Your task to perform on an android device: turn on the 24-hour format for clock Image 0: 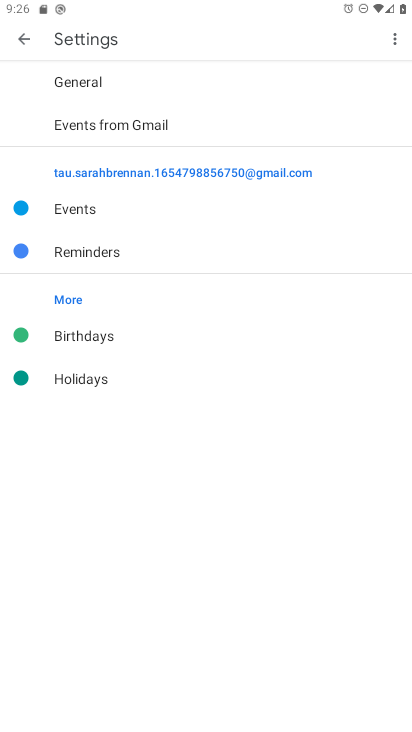
Step 0: press home button
Your task to perform on an android device: turn on the 24-hour format for clock Image 1: 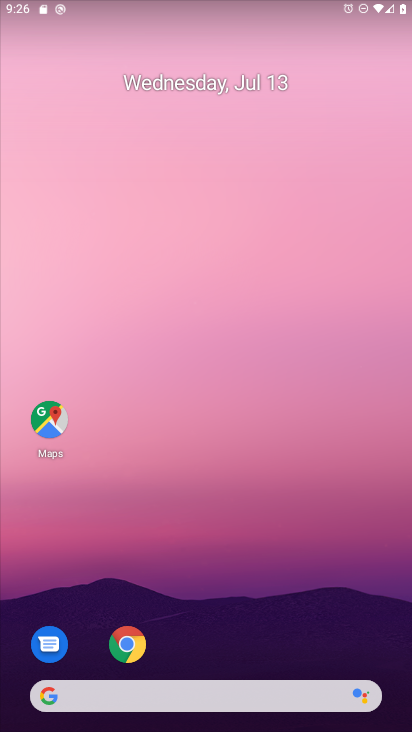
Step 1: drag from (296, 593) to (242, 1)
Your task to perform on an android device: turn on the 24-hour format for clock Image 2: 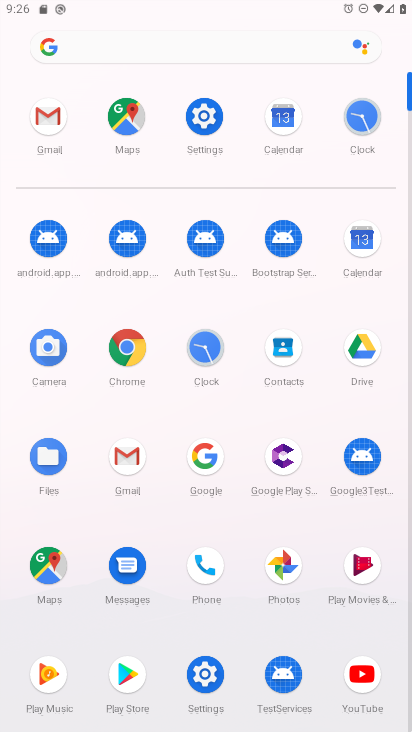
Step 2: click (366, 122)
Your task to perform on an android device: turn on the 24-hour format for clock Image 3: 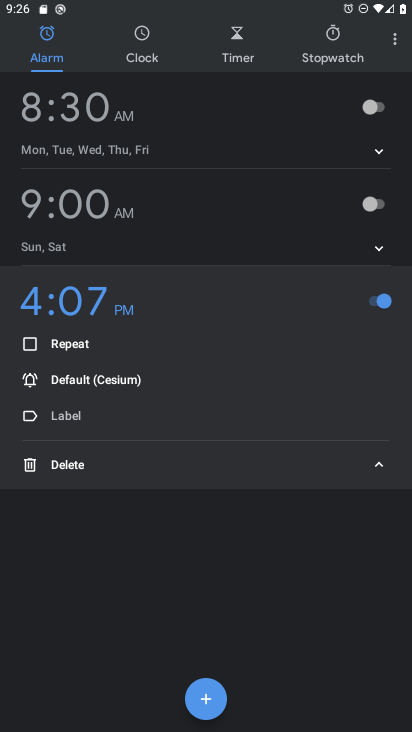
Step 3: click (396, 45)
Your task to perform on an android device: turn on the 24-hour format for clock Image 4: 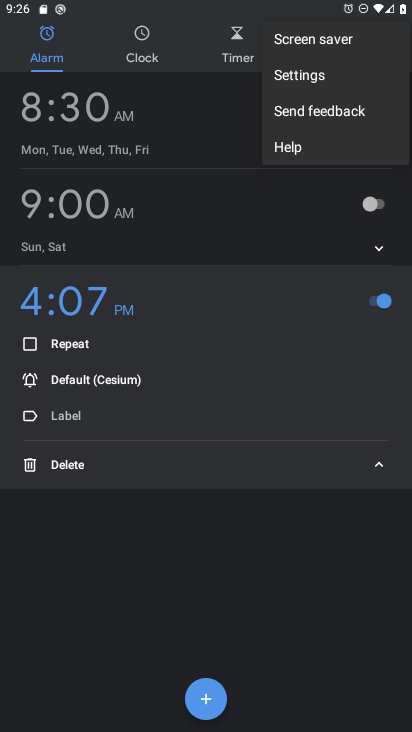
Step 4: click (326, 72)
Your task to perform on an android device: turn on the 24-hour format for clock Image 5: 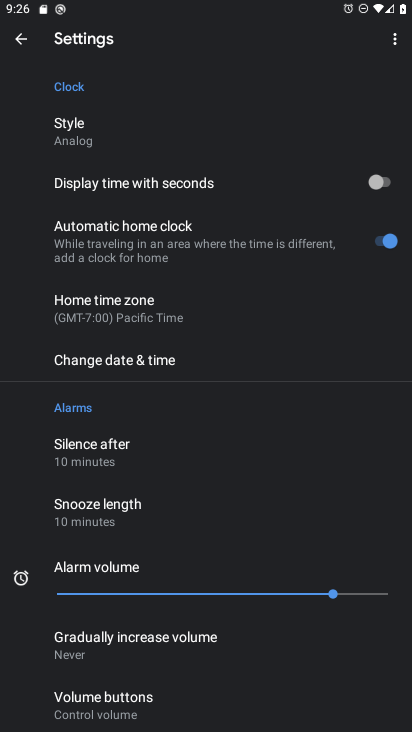
Step 5: click (143, 361)
Your task to perform on an android device: turn on the 24-hour format for clock Image 6: 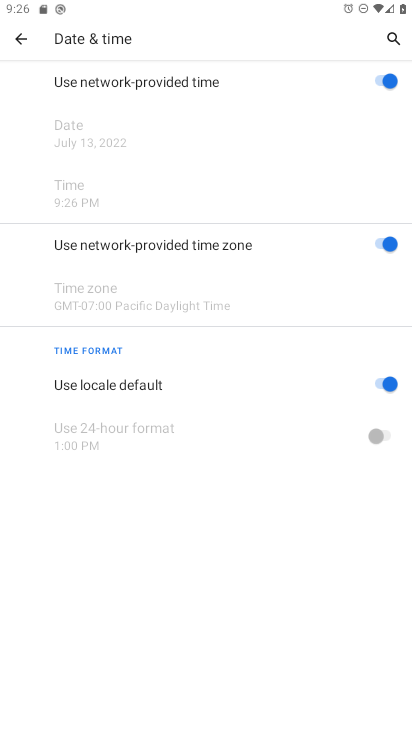
Step 6: click (388, 377)
Your task to perform on an android device: turn on the 24-hour format for clock Image 7: 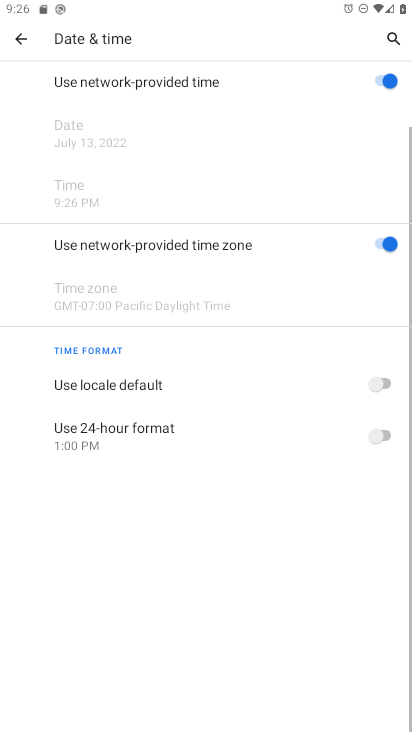
Step 7: click (376, 433)
Your task to perform on an android device: turn on the 24-hour format for clock Image 8: 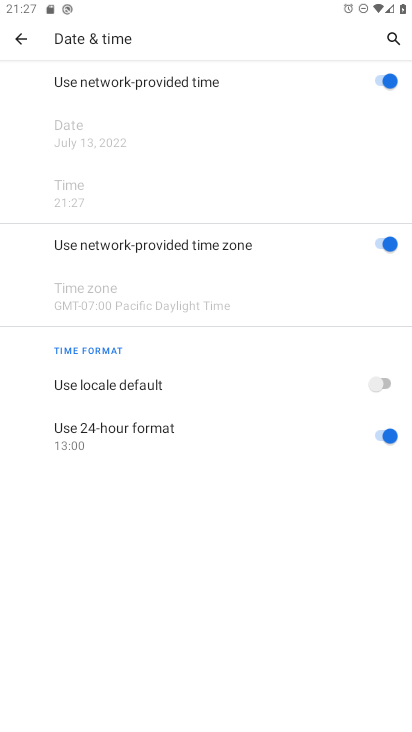
Step 8: task complete